Your task to perform on an android device: see creations saved in the google photos Image 0: 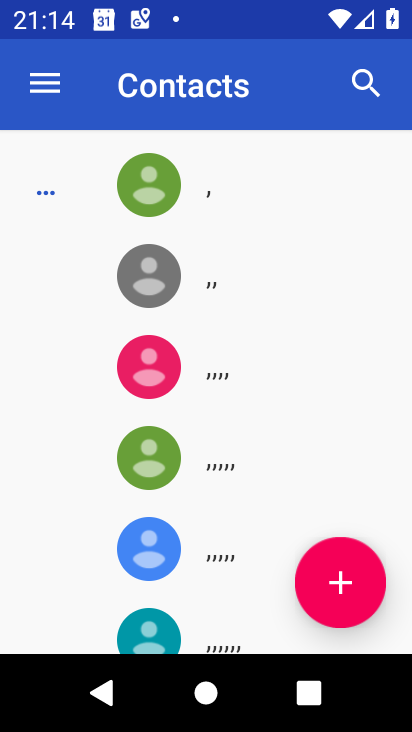
Step 0: press home button
Your task to perform on an android device: see creations saved in the google photos Image 1: 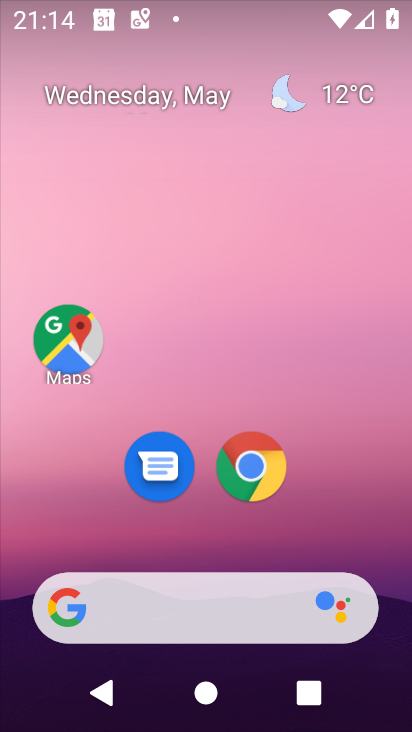
Step 1: drag from (204, 538) to (204, 40)
Your task to perform on an android device: see creations saved in the google photos Image 2: 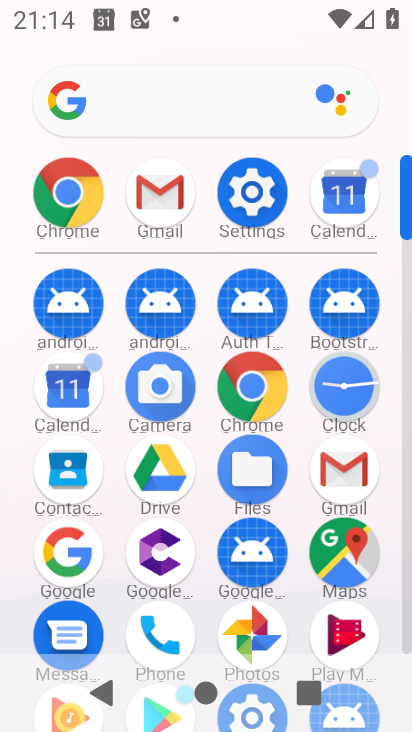
Step 2: click (255, 626)
Your task to perform on an android device: see creations saved in the google photos Image 3: 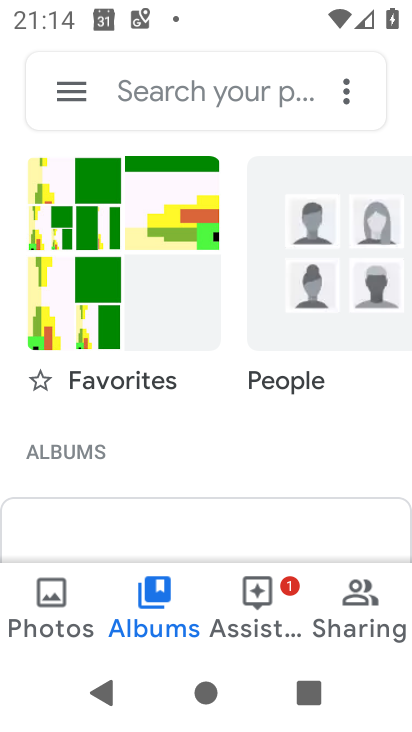
Step 3: click (188, 91)
Your task to perform on an android device: see creations saved in the google photos Image 4: 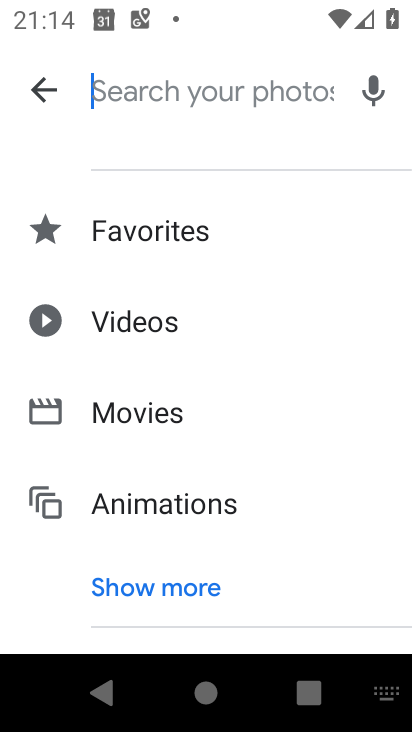
Step 4: click (129, 578)
Your task to perform on an android device: see creations saved in the google photos Image 5: 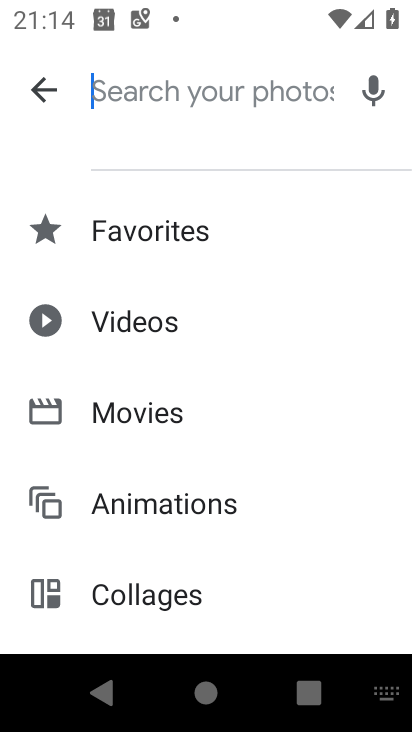
Step 5: drag from (139, 571) to (164, 112)
Your task to perform on an android device: see creations saved in the google photos Image 6: 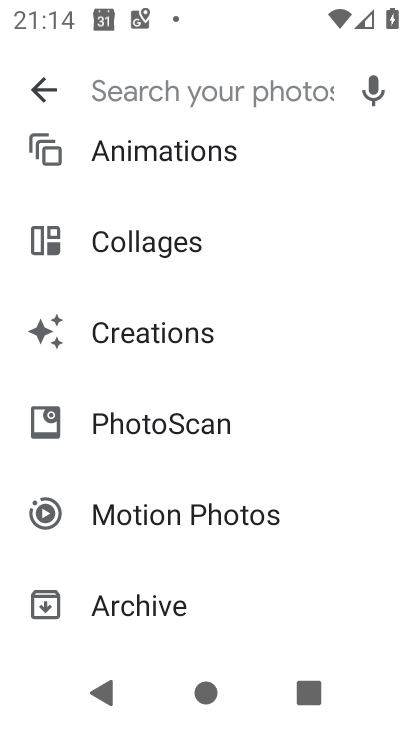
Step 6: click (152, 333)
Your task to perform on an android device: see creations saved in the google photos Image 7: 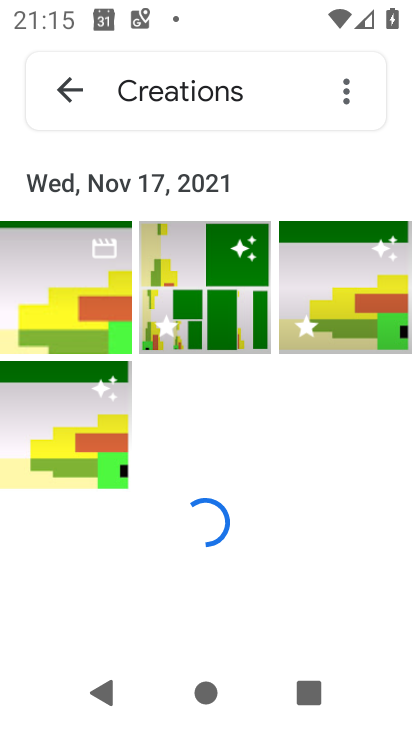
Step 7: task complete